Your task to perform on an android device: Open Wikipedia Image 0: 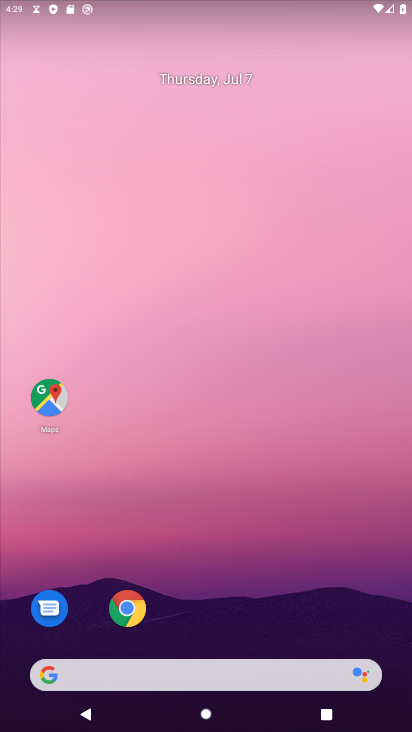
Step 0: drag from (294, 613) to (241, 38)
Your task to perform on an android device: Open Wikipedia Image 1: 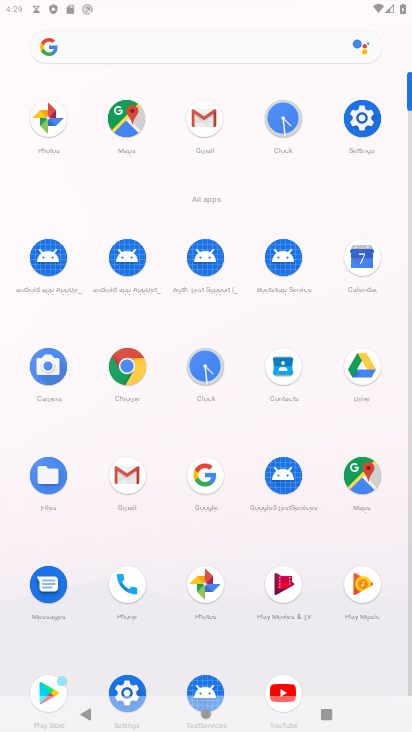
Step 1: click (120, 374)
Your task to perform on an android device: Open Wikipedia Image 2: 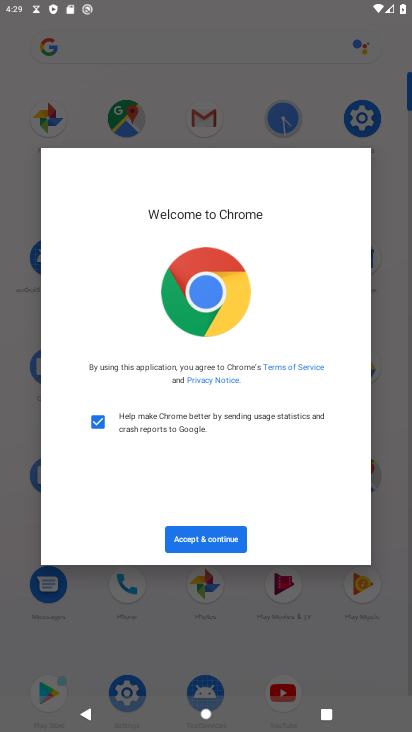
Step 2: click (185, 548)
Your task to perform on an android device: Open Wikipedia Image 3: 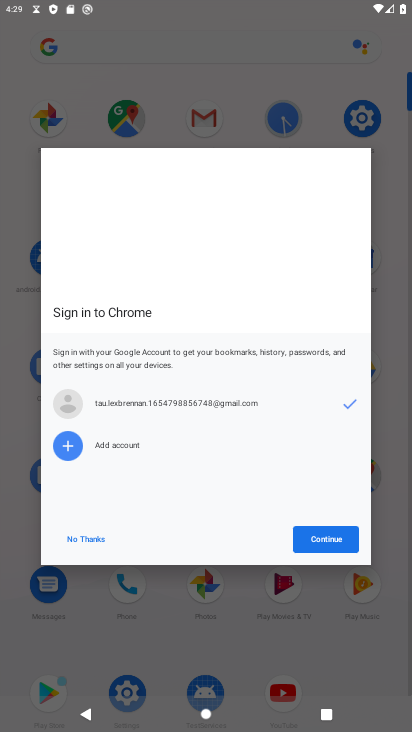
Step 3: click (319, 540)
Your task to perform on an android device: Open Wikipedia Image 4: 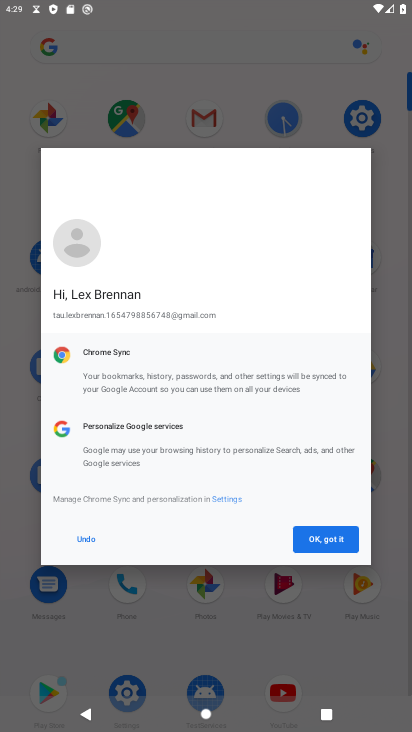
Step 4: click (321, 540)
Your task to perform on an android device: Open Wikipedia Image 5: 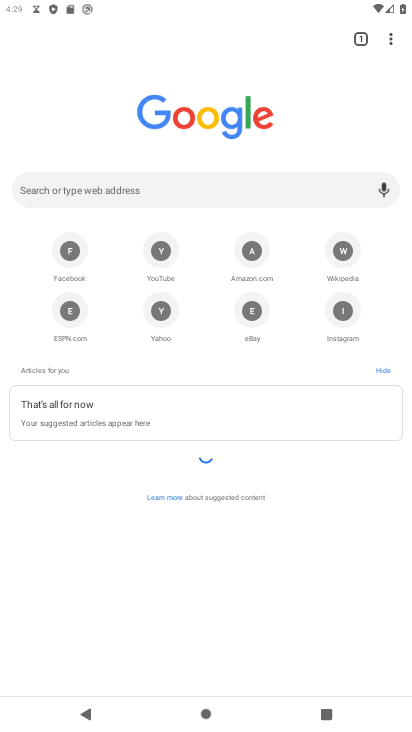
Step 5: click (343, 246)
Your task to perform on an android device: Open Wikipedia Image 6: 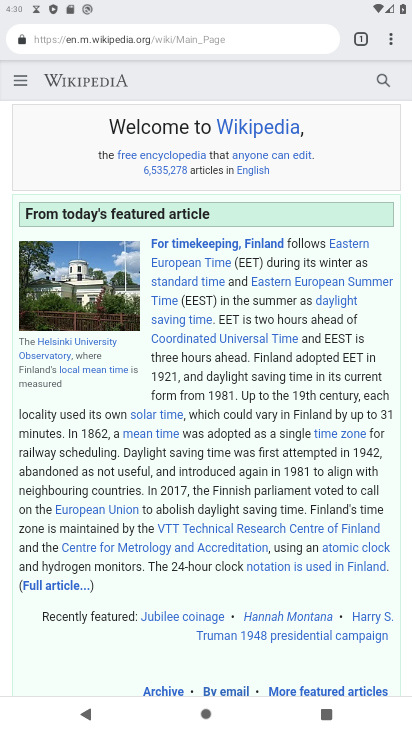
Step 6: task complete